Your task to perform on an android device: How much does a 3 bedroom apartment rent for in Dallas? Image 0: 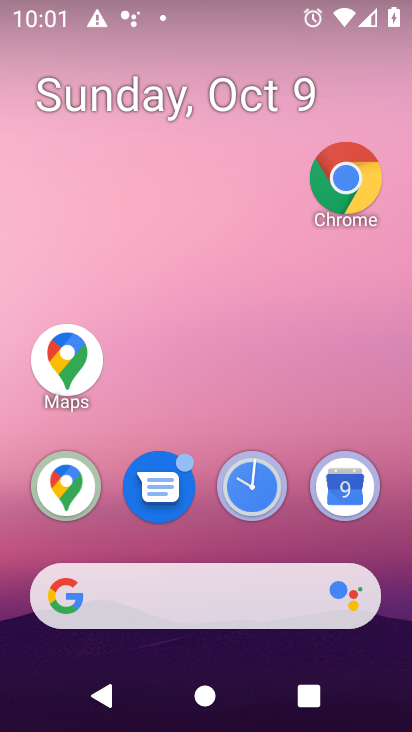
Step 0: click (411, 165)
Your task to perform on an android device: How much does a 3 bedroom apartment rent for in Dallas? Image 1: 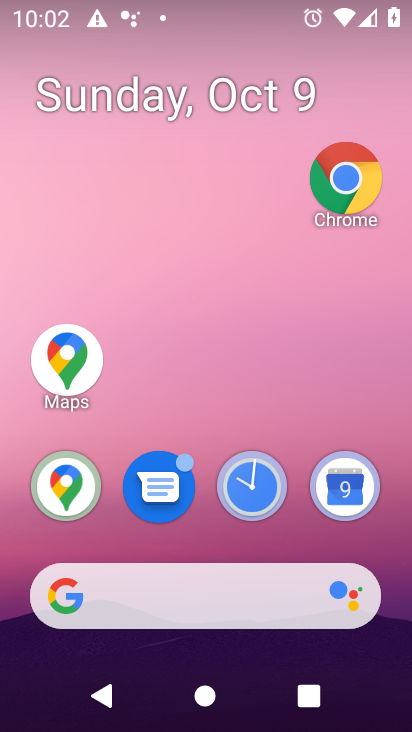
Step 1: drag from (349, 726) to (385, 724)
Your task to perform on an android device: How much does a 3 bedroom apartment rent for in Dallas? Image 2: 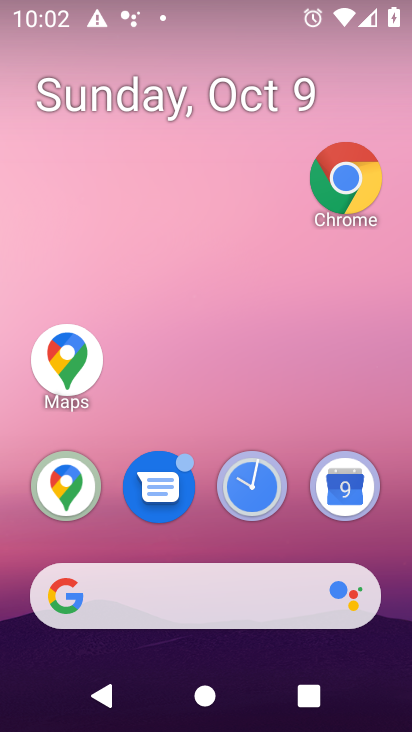
Step 2: drag from (166, 643) to (174, 271)
Your task to perform on an android device: How much does a 3 bedroom apartment rent for in Dallas? Image 3: 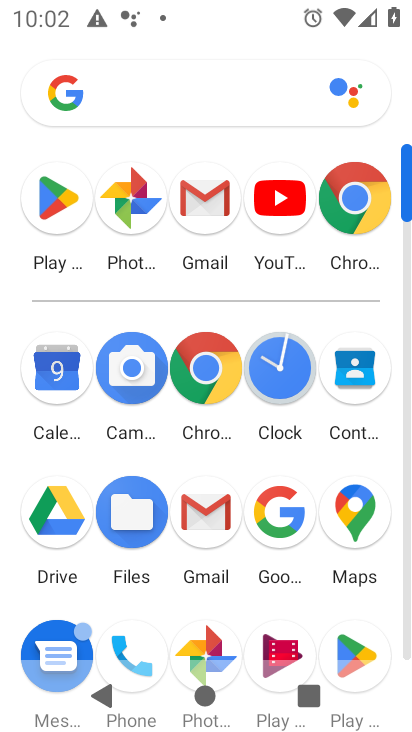
Step 3: click (289, 509)
Your task to perform on an android device: How much does a 3 bedroom apartment rent for in Dallas? Image 4: 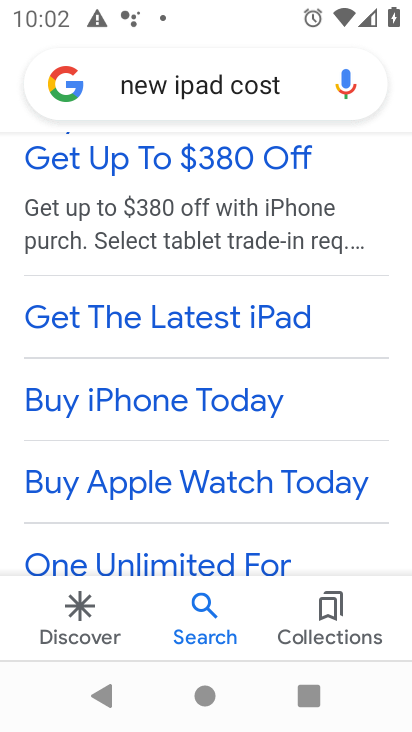
Step 4: click (291, 80)
Your task to perform on an android device: How much does a 3 bedroom apartment rent for in Dallas? Image 5: 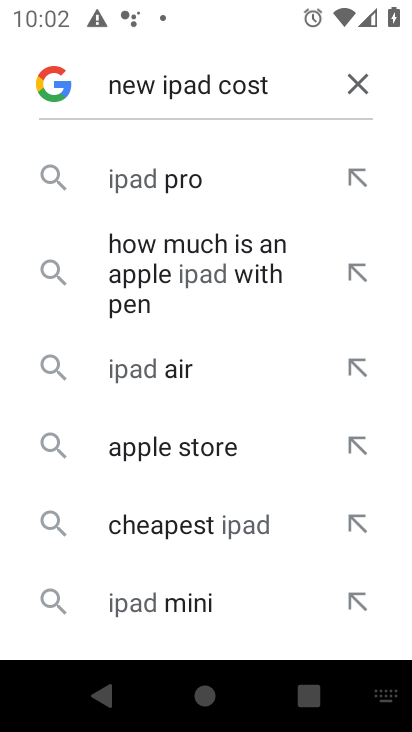
Step 5: click (348, 83)
Your task to perform on an android device: How much does a 3 bedroom apartment rent for in Dallas? Image 6: 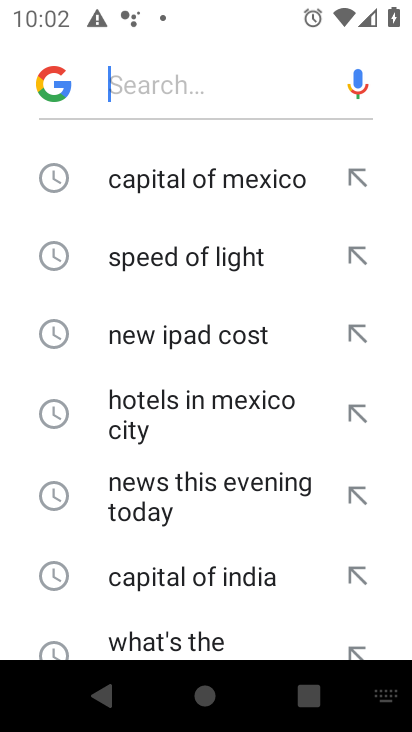
Step 6: type "new iPad cost"
Your task to perform on an android device: How much does a 3 bedroom apartment rent for in Dallas? Image 7: 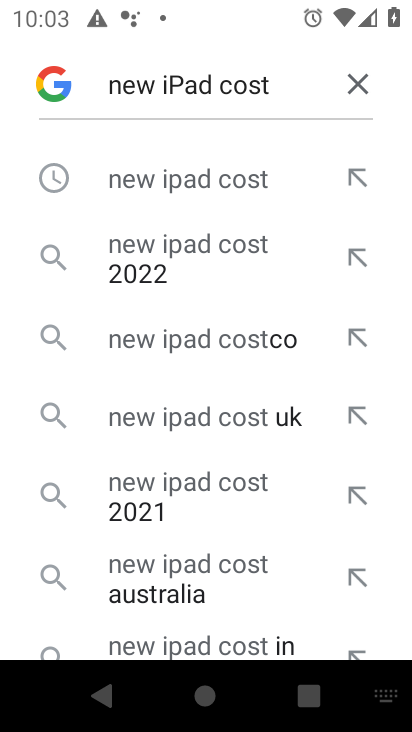
Step 7: click (352, 86)
Your task to perform on an android device: How much does a 3 bedroom apartment rent for in Dallas? Image 8: 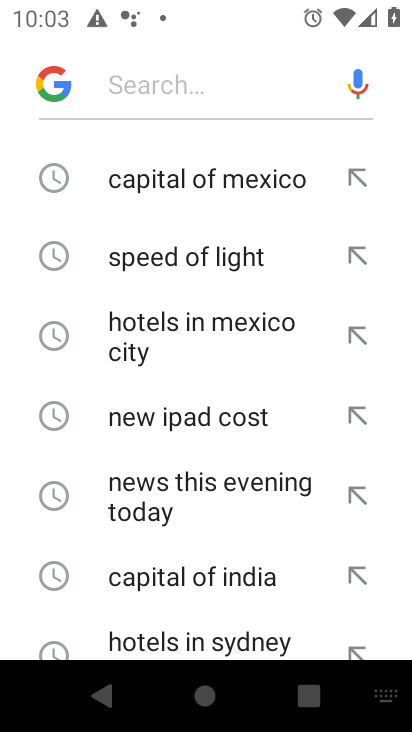
Step 8: type "3 bedroom apartment rent for in Dallas"
Your task to perform on an android device: How much does a 3 bedroom apartment rent for in Dallas? Image 9: 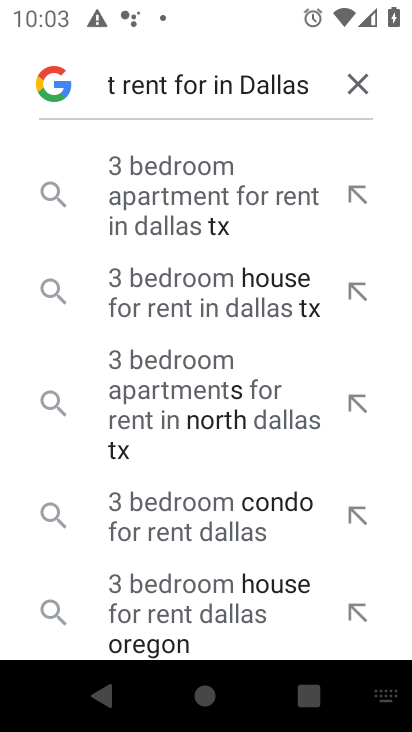
Step 9: click (214, 185)
Your task to perform on an android device: How much does a 3 bedroom apartment rent for in Dallas? Image 10: 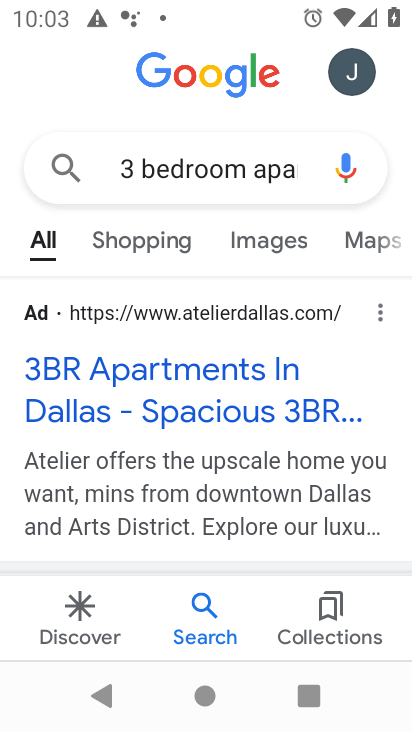
Step 10: task complete